Your task to perform on an android device: Go to internet settings Image 0: 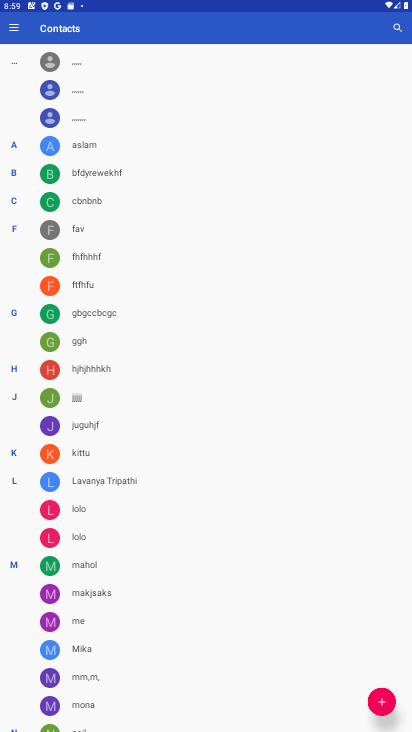
Step 0: press home button
Your task to perform on an android device: Go to internet settings Image 1: 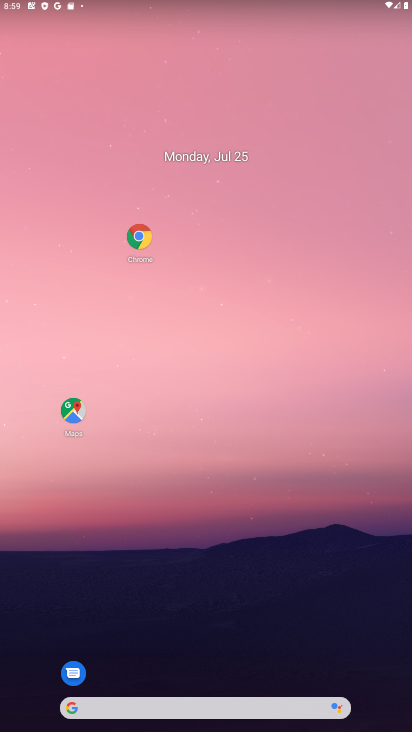
Step 1: drag from (194, 670) to (201, 6)
Your task to perform on an android device: Go to internet settings Image 2: 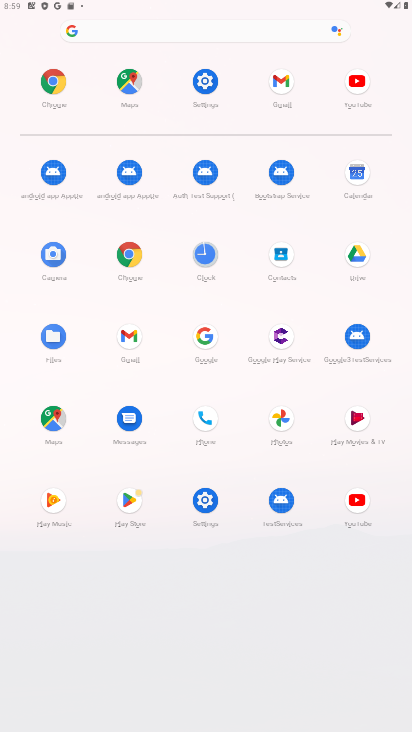
Step 2: click (209, 522)
Your task to perform on an android device: Go to internet settings Image 3: 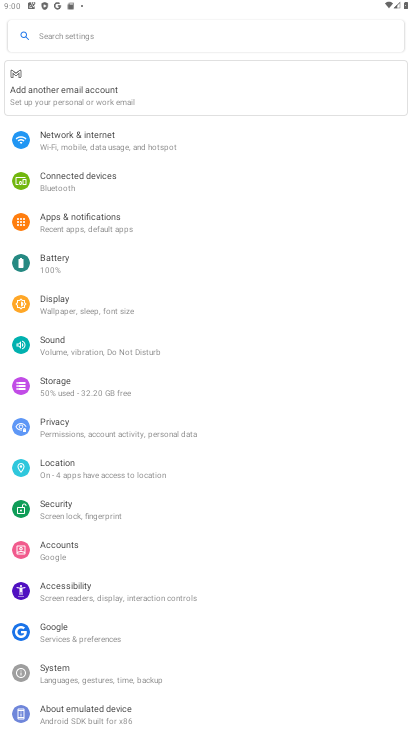
Step 3: click (96, 147)
Your task to perform on an android device: Go to internet settings Image 4: 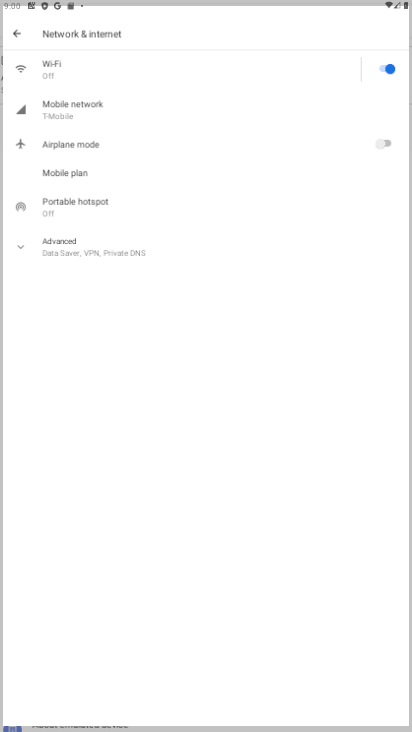
Step 4: task complete